Your task to perform on an android device: Go to CNN.com Image 0: 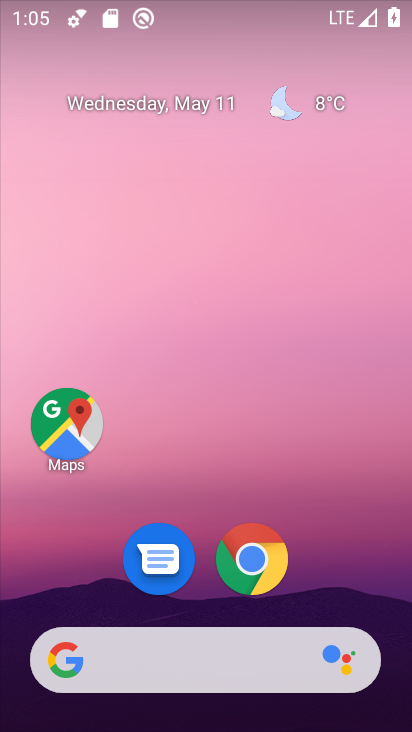
Step 0: click (261, 569)
Your task to perform on an android device: Go to CNN.com Image 1: 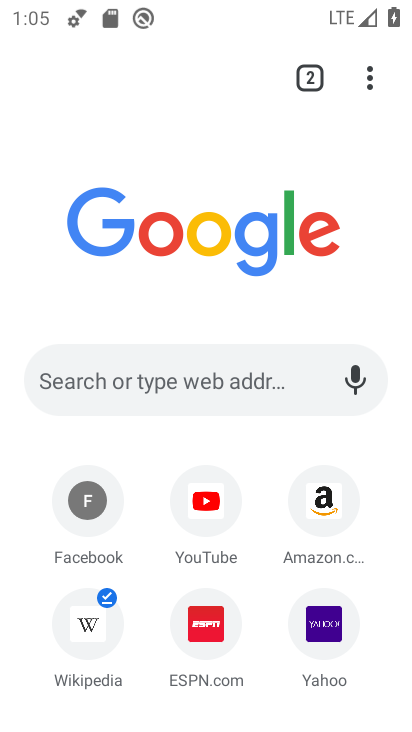
Step 1: click (243, 384)
Your task to perform on an android device: Go to CNN.com Image 2: 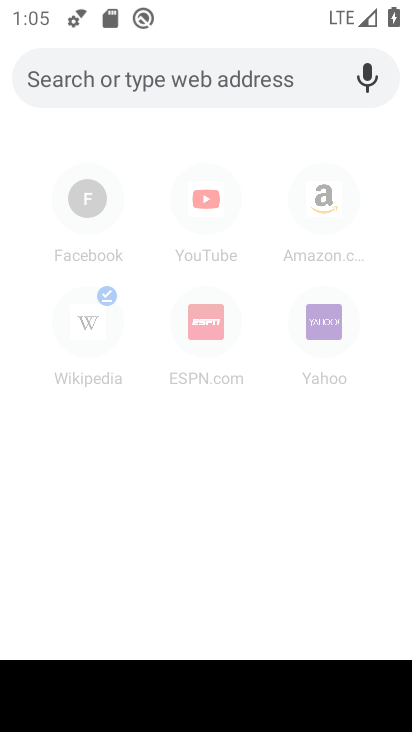
Step 2: type "CNN.com"
Your task to perform on an android device: Go to CNN.com Image 3: 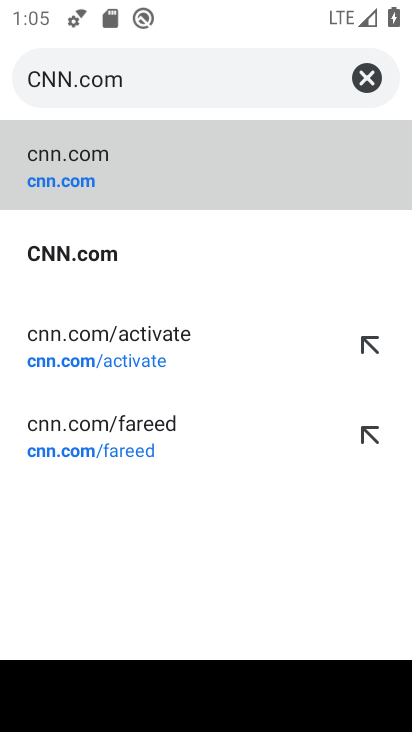
Step 3: click (97, 162)
Your task to perform on an android device: Go to CNN.com Image 4: 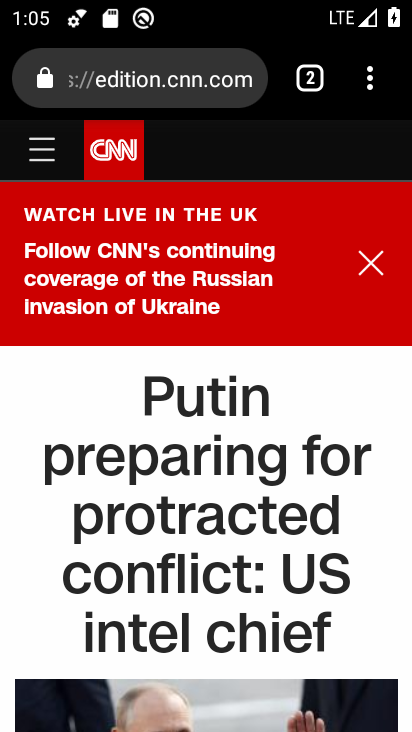
Step 4: task complete